Your task to perform on an android device: Open the phone app and click the voicemail tab. Image 0: 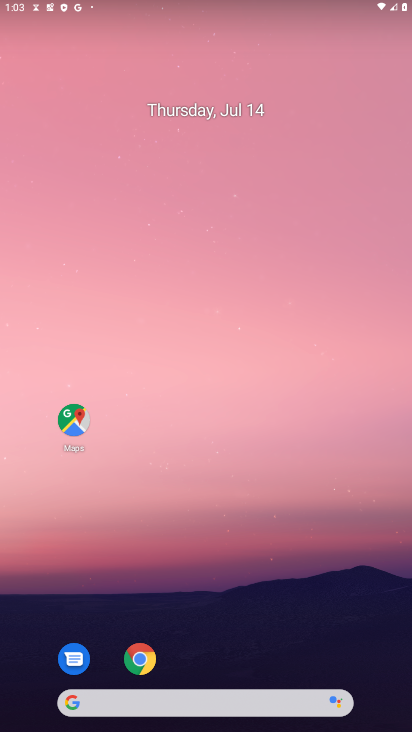
Step 0: drag from (40, 693) to (226, 267)
Your task to perform on an android device: Open the phone app and click the voicemail tab. Image 1: 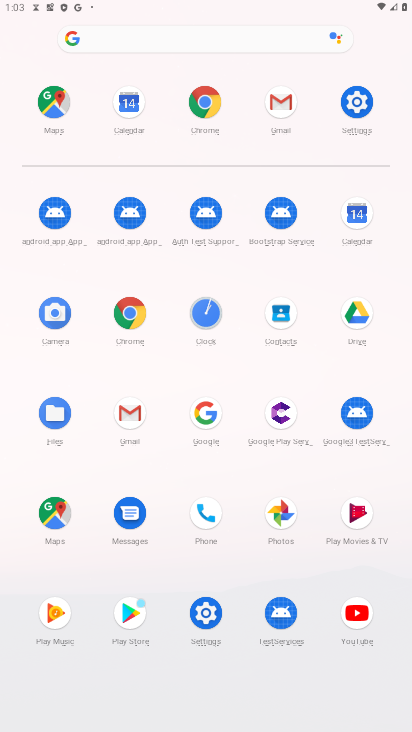
Step 1: click (203, 537)
Your task to perform on an android device: Open the phone app and click the voicemail tab. Image 2: 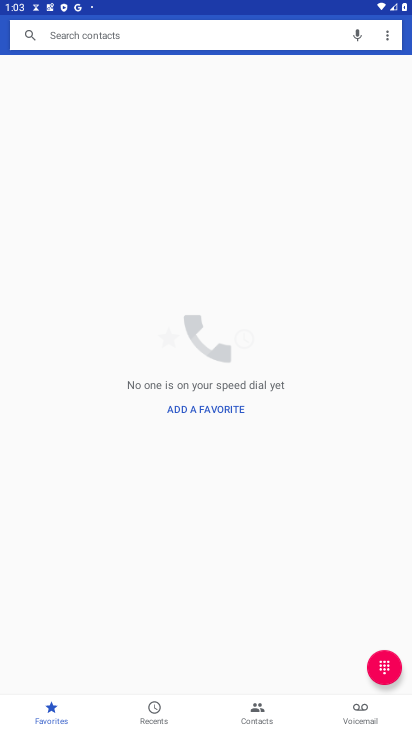
Step 2: click (347, 709)
Your task to perform on an android device: Open the phone app and click the voicemail tab. Image 3: 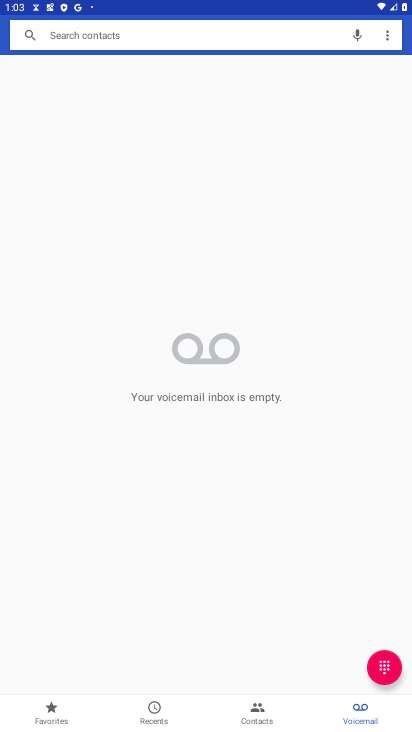
Step 3: task complete